Your task to perform on an android device: remove spam from my inbox in the gmail app Image 0: 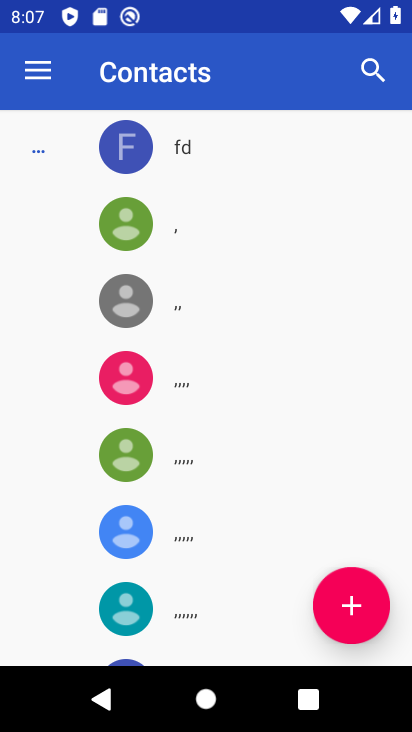
Step 0: press home button
Your task to perform on an android device: remove spam from my inbox in the gmail app Image 1: 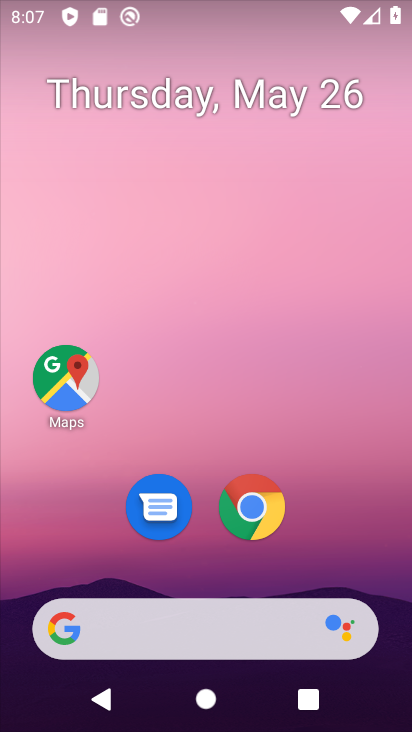
Step 1: drag from (187, 568) to (218, 241)
Your task to perform on an android device: remove spam from my inbox in the gmail app Image 2: 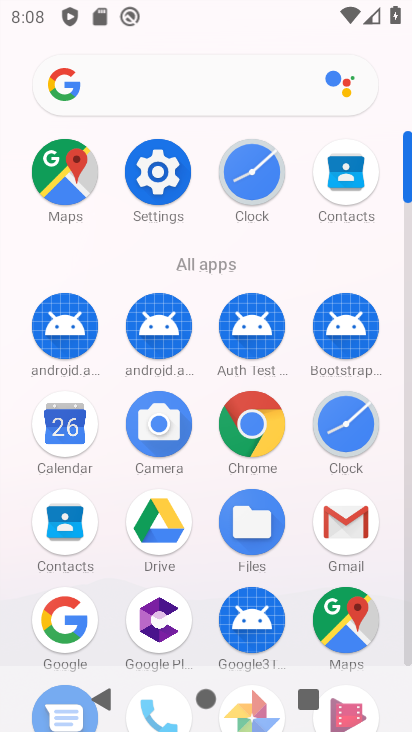
Step 2: click (358, 501)
Your task to perform on an android device: remove spam from my inbox in the gmail app Image 3: 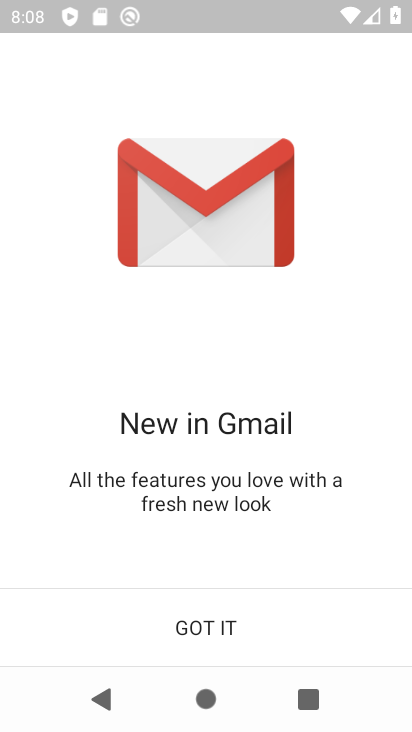
Step 3: click (215, 639)
Your task to perform on an android device: remove spam from my inbox in the gmail app Image 4: 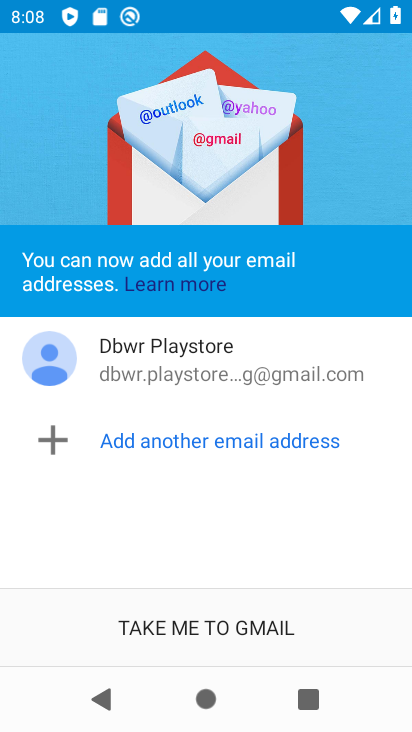
Step 4: click (201, 629)
Your task to perform on an android device: remove spam from my inbox in the gmail app Image 5: 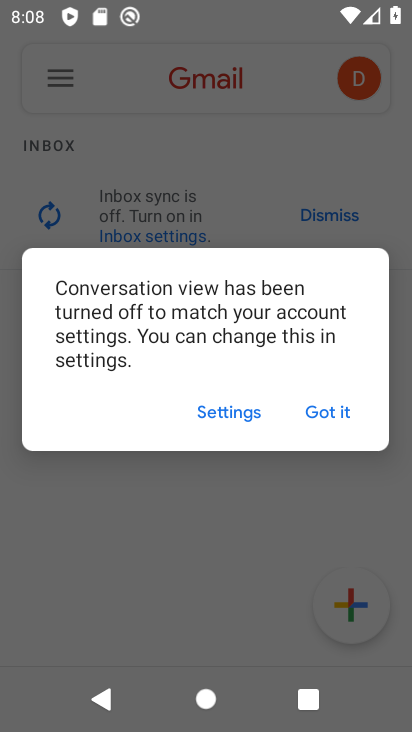
Step 5: click (329, 423)
Your task to perform on an android device: remove spam from my inbox in the gmail app Image 6: 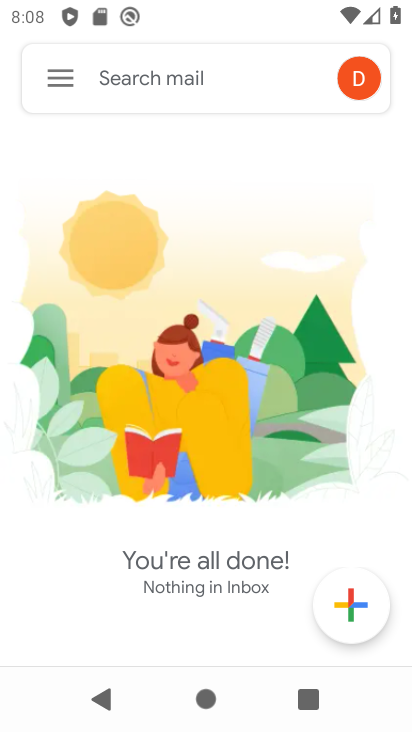
Step 6: click (65, 79)
Your task to perform on an android device: remove spam from my inbox in the gmail app Image 7: 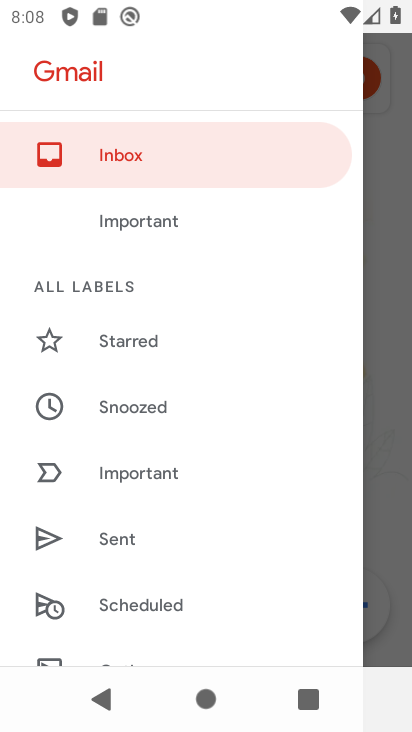
Step 7: drag from (152, 551) to (224, 194)
Your task to perform on an android device: remove spam from my inbox in the gmail app Image 8: 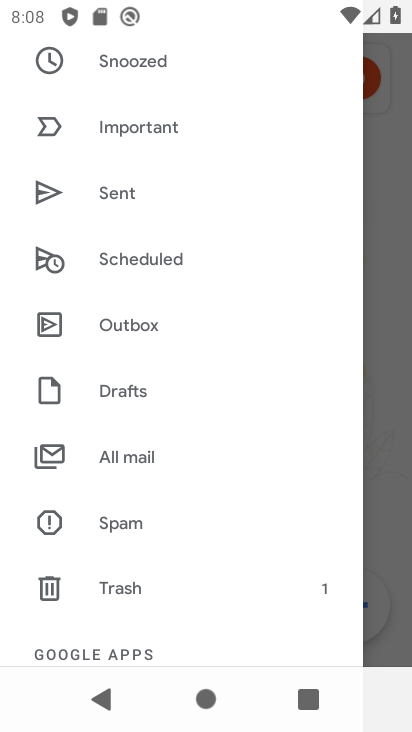
Step 8: click (134, 526)
Your task to perform on an android device: remove spam from my inbox in the gmail app Image 9: 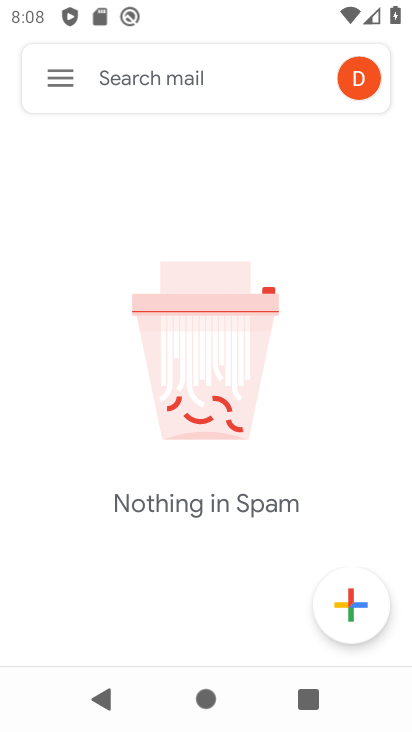
Step 9: task complete